Your task to perform on an android device: toggle airplane mode Image 0: 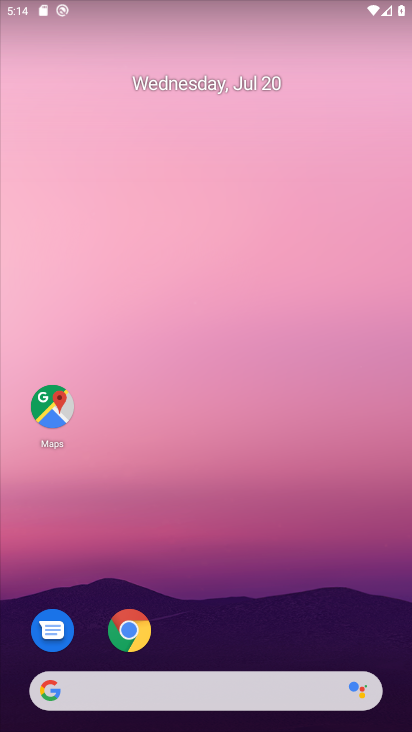
Step 0: drag from (193, 102) to (158, 542)
Your task to perform on an android device: toggle airplane mode Image 1: 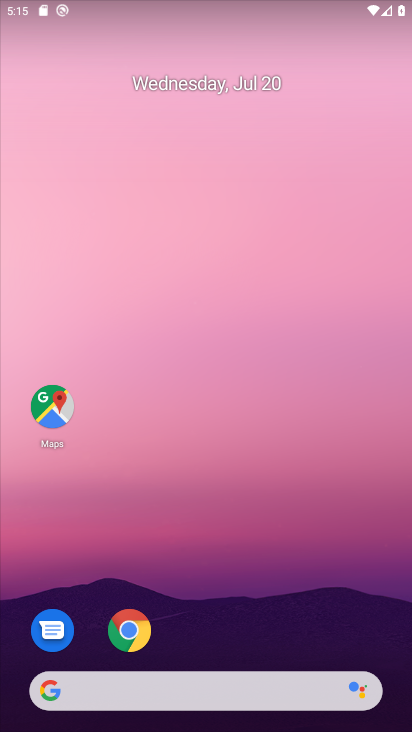
Step 1: drag from (180, 18) to (68, 654)
Your task to perform on an android device: toggle airplane mode Image 2: 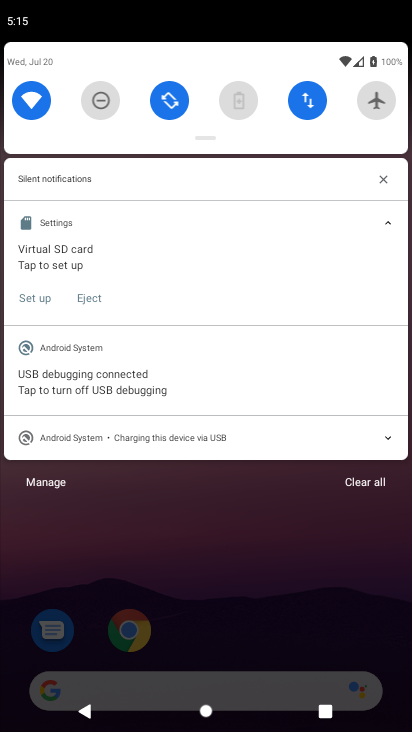
Step 2: click (366, 99)
Your task to perform on an android device: toggle airplane mode Image 3: 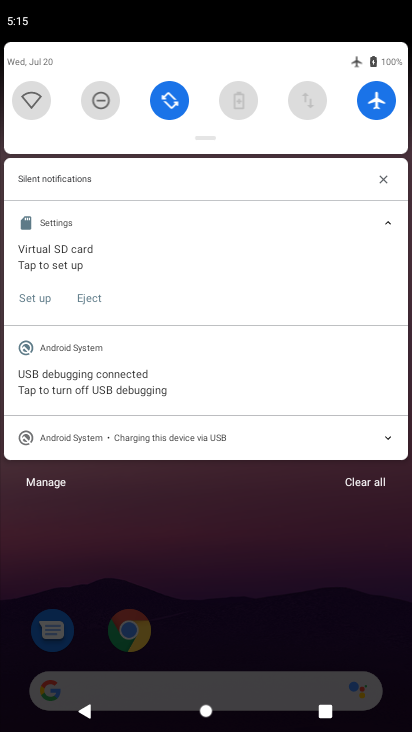
Step 3: task complete